Your task to perform on an android device: Show me popular games on the Play Store Image 0: 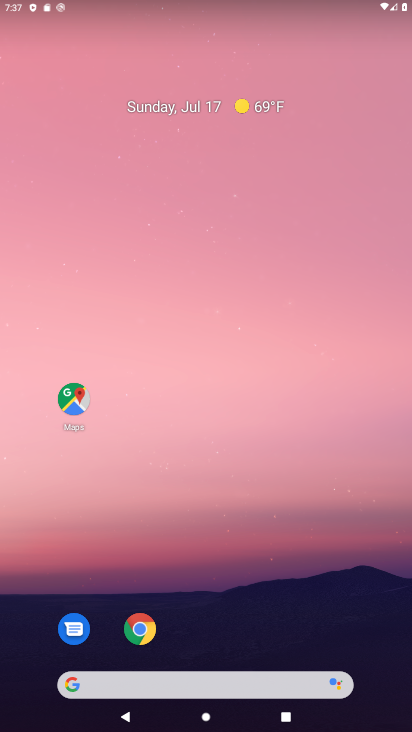
Step 0: drag from (210, 640) to (185, 126)
Your task to perform on an android device: Show me popular games on the Play Store Image 1: 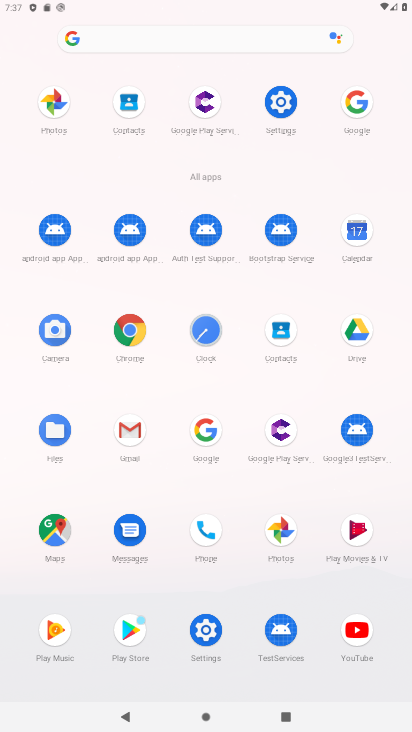
Step 1: click (130, 631)
Your task to perform on an android device: Show me popular games on the Play Store Image 2: 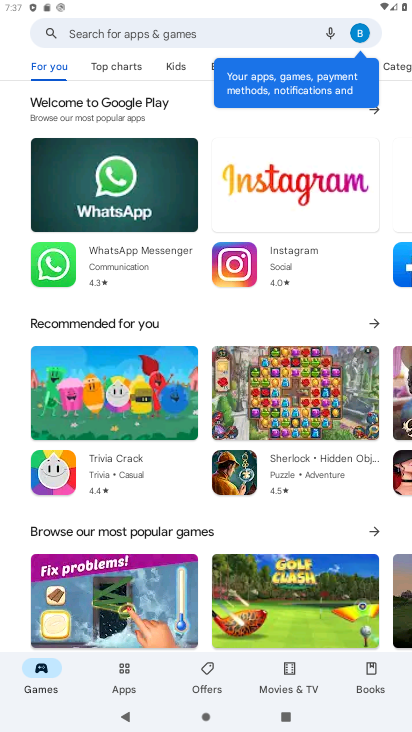
Step 2: click (207, 534)
Your task to perform on an android device: Show me popular games on the Play Store Image 3: 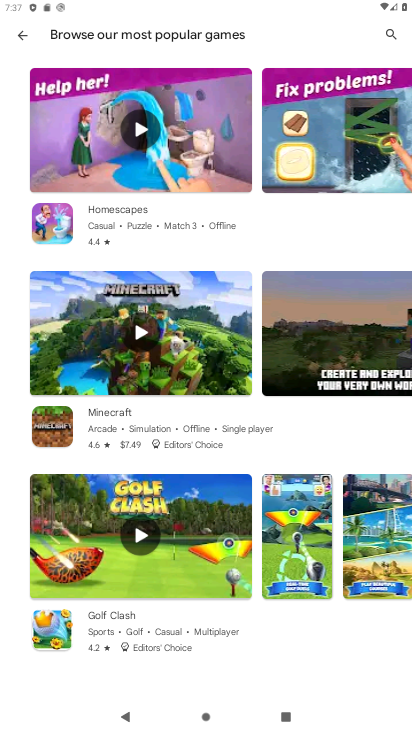
Step 3: task complete